Your task to perform on an android device: Open Chrome and go to settings Image 0: 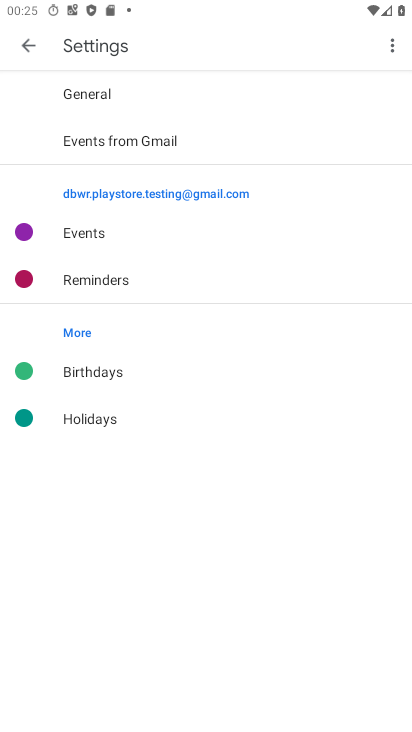
Step 0: press home button
Your task to perform on an android device: Open Chrome and go to settings Image 1: 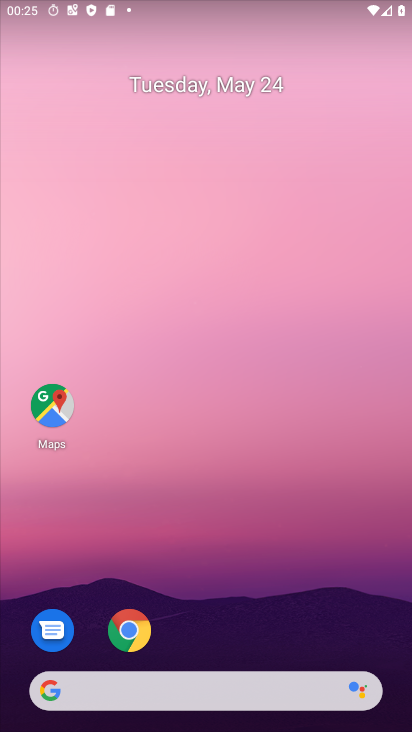
Step 1: click (134, 629)
Your task to perform on an android device: Open Chrome and go to settings Image 2: 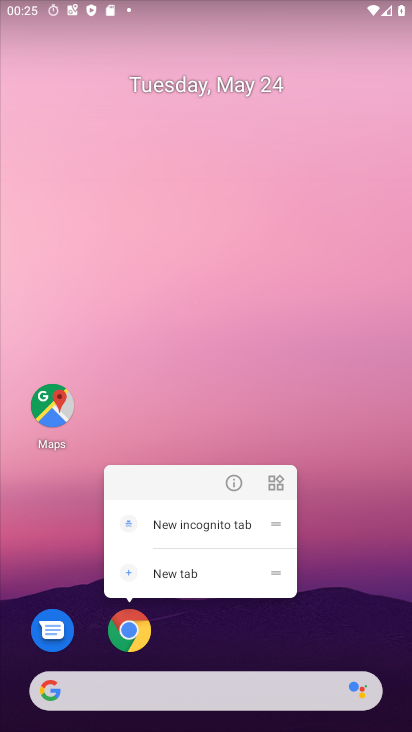
Step 2: click (131, 633)
Your task to perform on an android device: Open Chrome and go to settings Image 3: 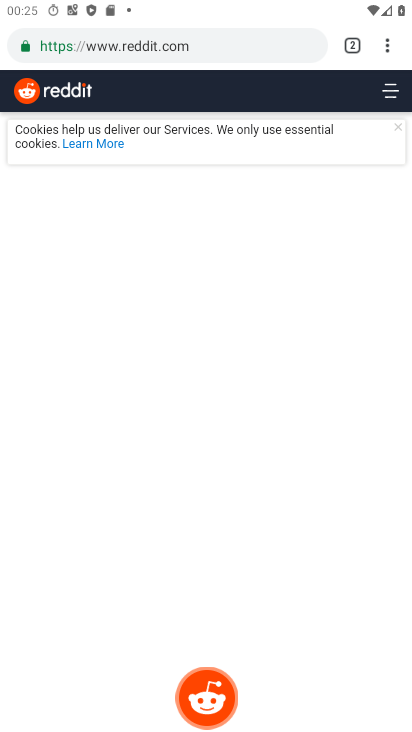
Step 3: click (388, 45)
Your task to perform on an android device: Open Chrome and go to settings Image 4: 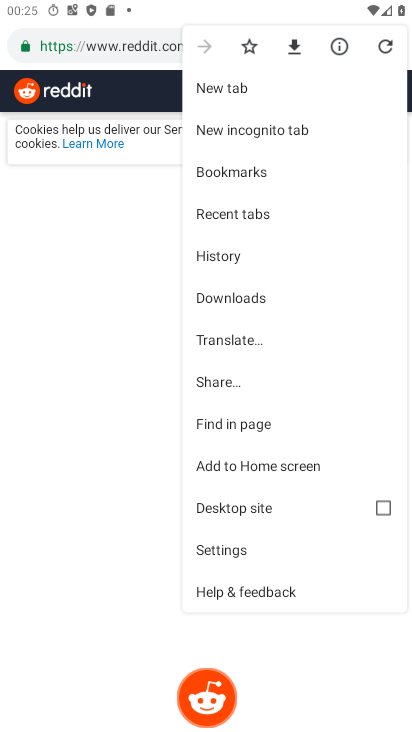
Step 4: click (211, 553)
Your task to perform on an android device: Open Chrome and go to settings Image 5: 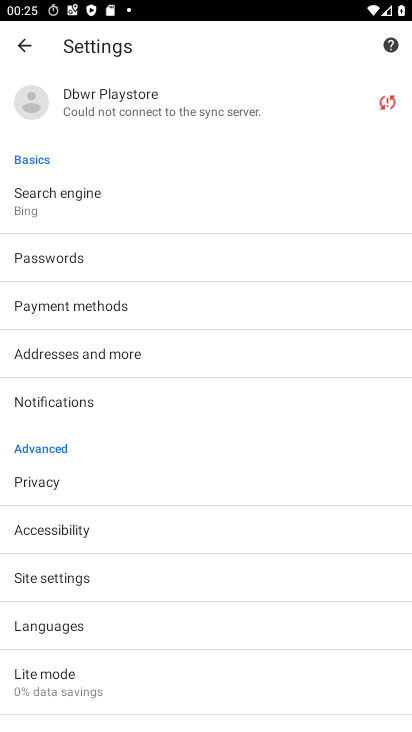
Step 5: task complete